Your task to perform on an android device: Go to sound settings Image 0: 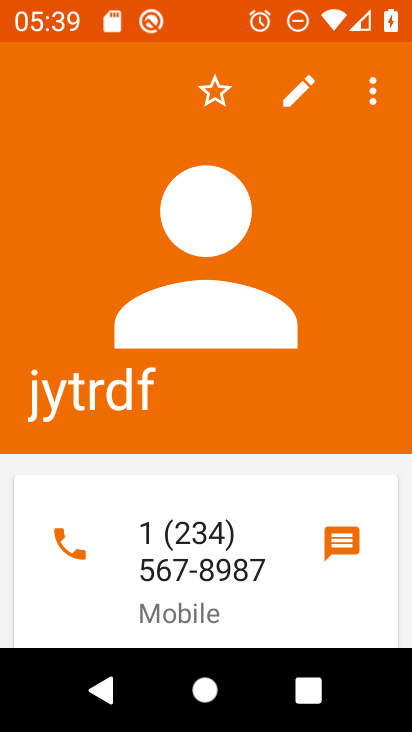
Step 0: press home button
Your task to perform on an android device: Go to sound settings Image 1: 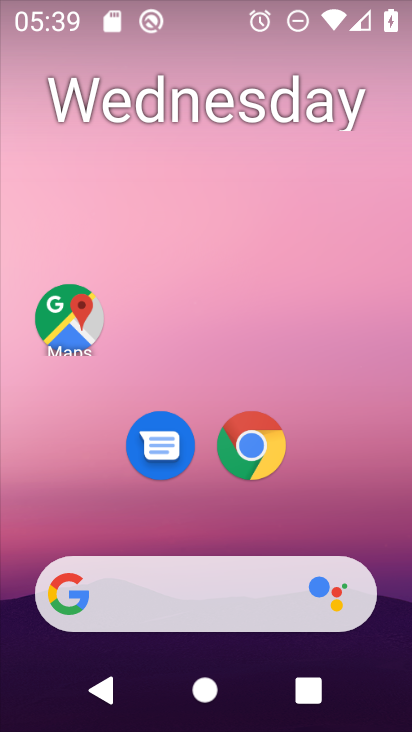
Step 1: drag from (217, 523) to (227, 120)
Your task to perform on an android device: Go to sound settings Image 2: 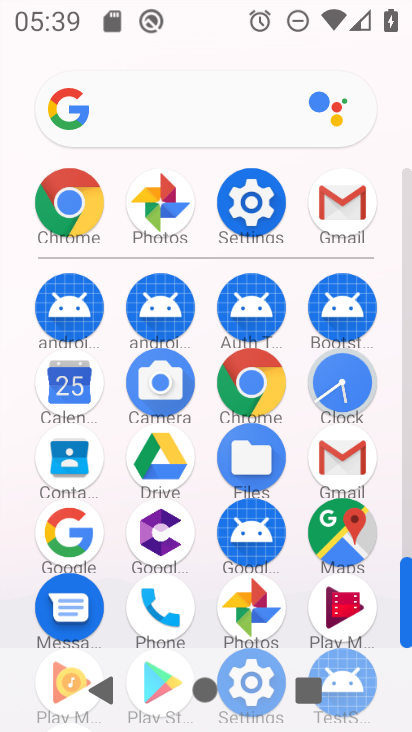
Step 2: click (256, 210)
Your task to perform on an android device: Go to sound settings Image 3: 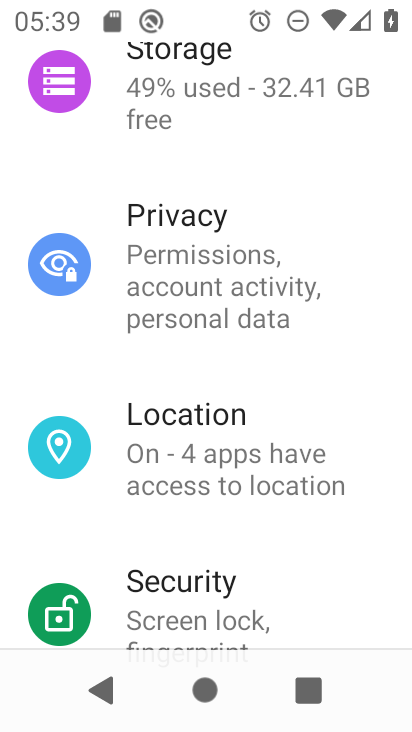
Step 3: drag from (177, 173) to (138, 668)
Your task to perform on an android device: Go to sound settings Image 4: 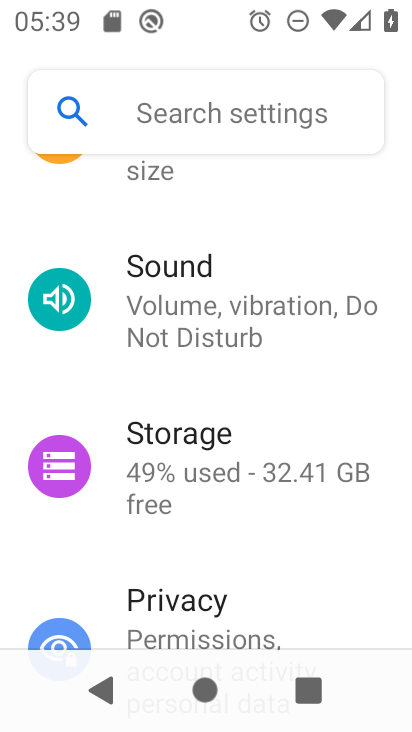
Step 4: click (191, 307)
Your task to perform on an android device: Go to sound settings Image 5: 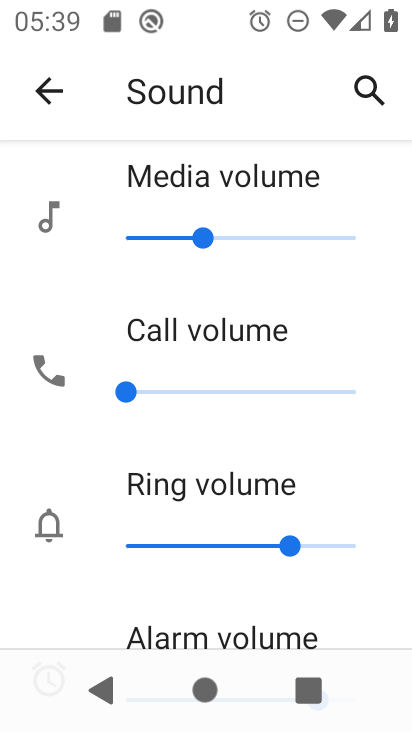
Step 5: task complete